Your task to perform on an android device: What's the weather like in Singapore? Image 0: 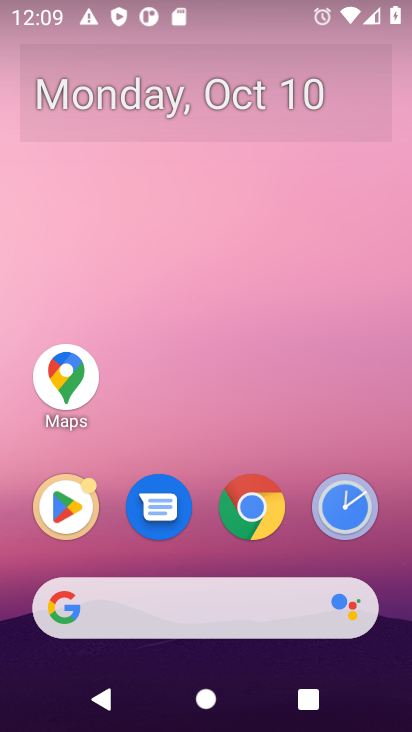
Step 0: click (302, 604)
Your task to perform on an android device: What's the weather like in Singapore? Image 1: 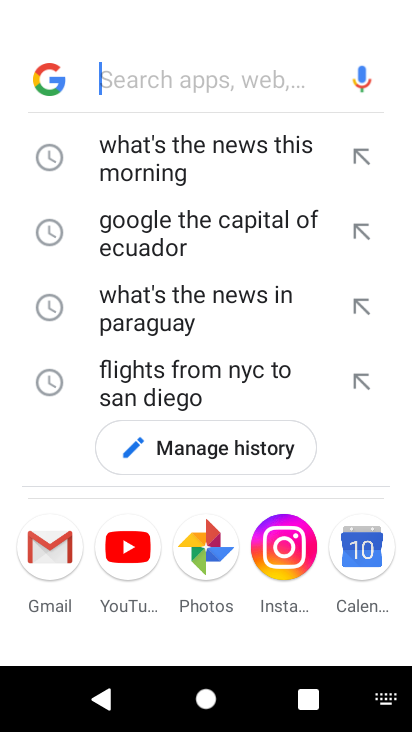
Step 1: type "What's the weather like in Singapore"
Your task to perform on an android device: What's the weather like in Singapore? Image 2: 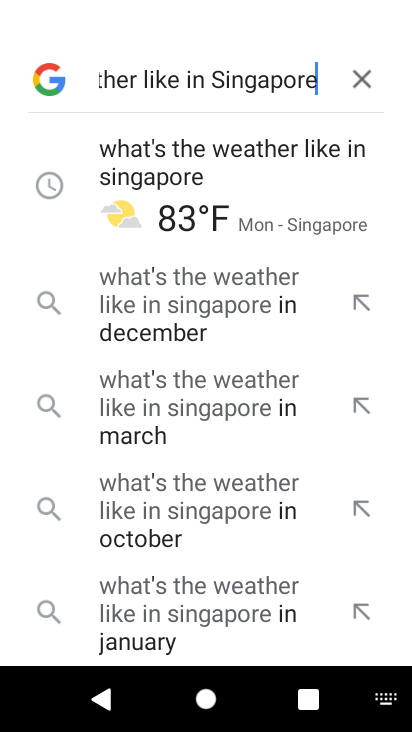
Step 2: press enter
Your task to perform on an android device: What's the weather like in Singapore? Image 3: 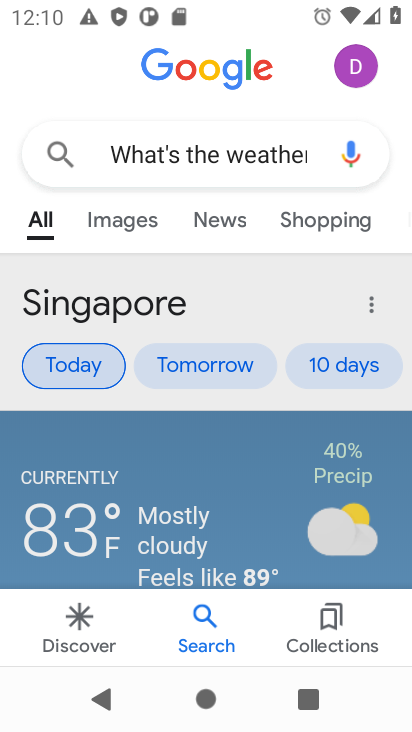
Step 3: task complete